Your task to perform on an android device: Open wifi settings Image 0: 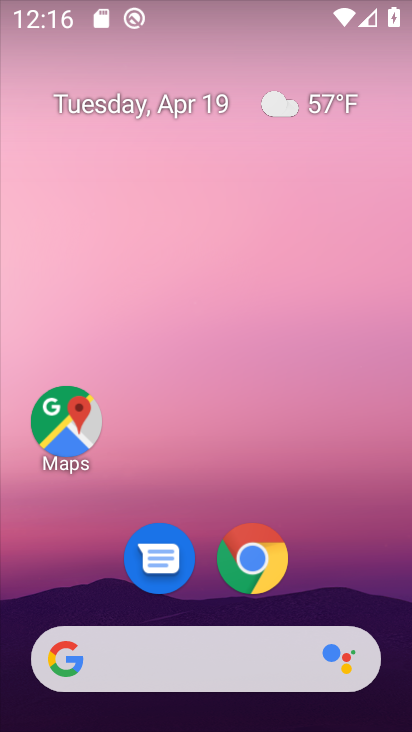
Step 0: drag from (368, 555) to (237, 54)
Your task to perform on an android device: Open wifi settings Image 1: 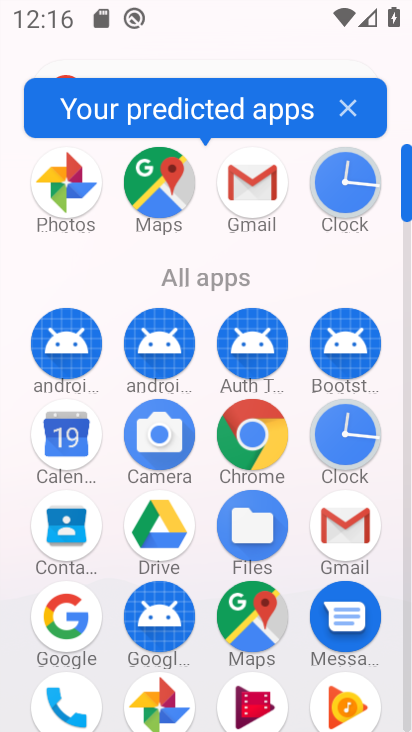
Step 1: drag from (223, 494) to (209, 134)
Your task to perform on an android device: Open wifi settings Image 2: 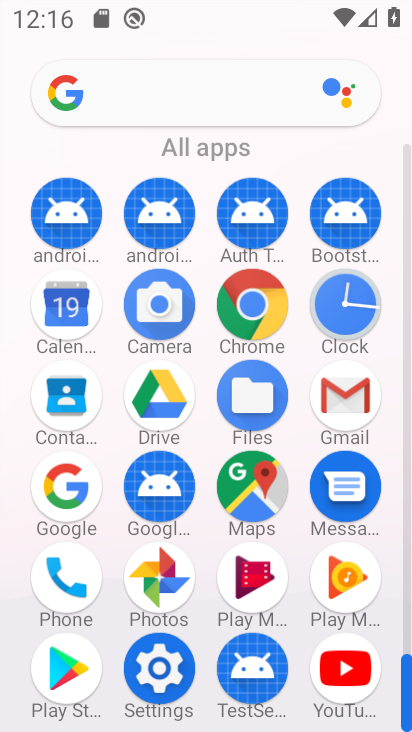
Step 2: click (170, 662)
Your task to perform on an android device: Open wifi settings Image 3: 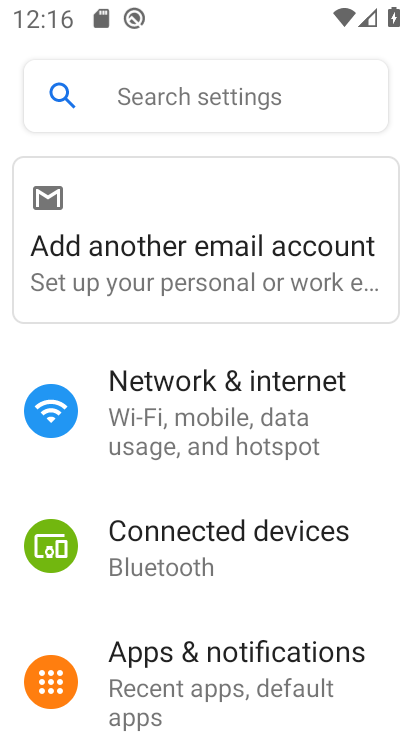
Step 3: click (179, 425)
Your task to perform on an android device: Open wifi settings Image 4: 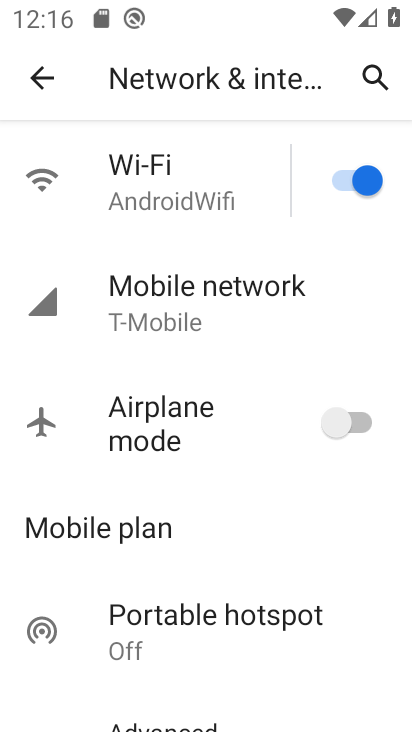
Step 4: click (157, 193)
Your task to perform on an android device: Open wifi settings Image 5: 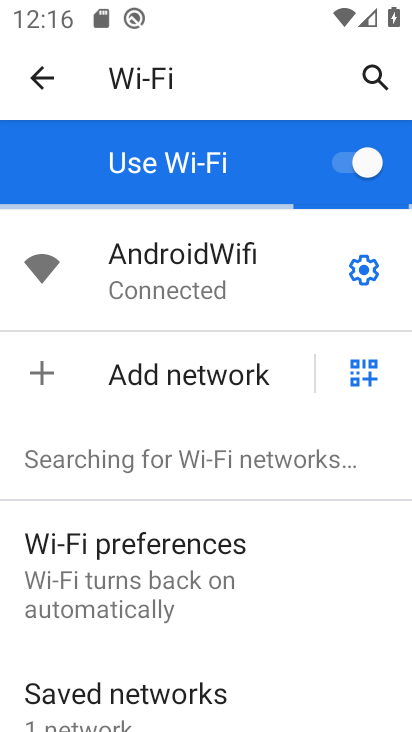
Step 5: task complete